Your task to perform on an android device: Go to calendar. Show me events next week Image 0: 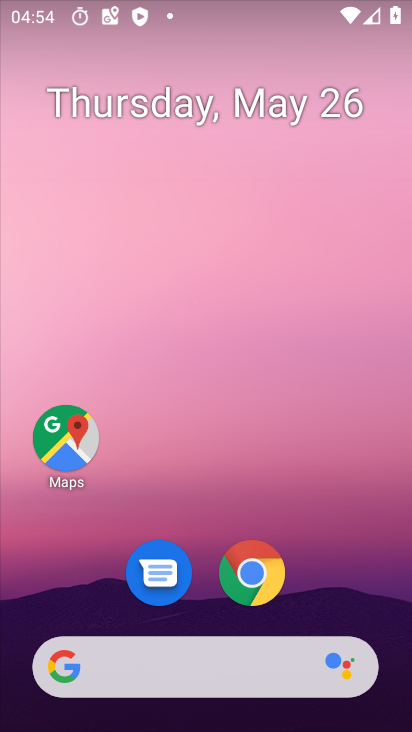
Step 0: click (67, 440)
Your task to perform on an android device: Go to calendar. Show me events next week Image 1: 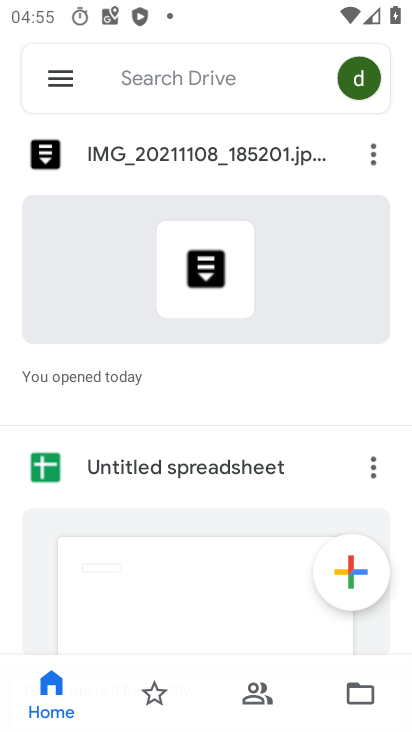
Step 1: press home button
Your task to perform on an android device: Go to calendar. Show me events next week Image 2: 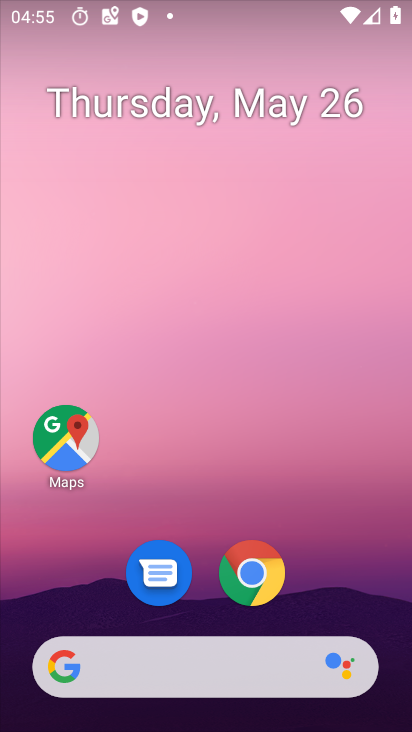
Step 2: click (65, 426)
Your task to perform on an android device: Go to calendar. Show me events next week Image 3: 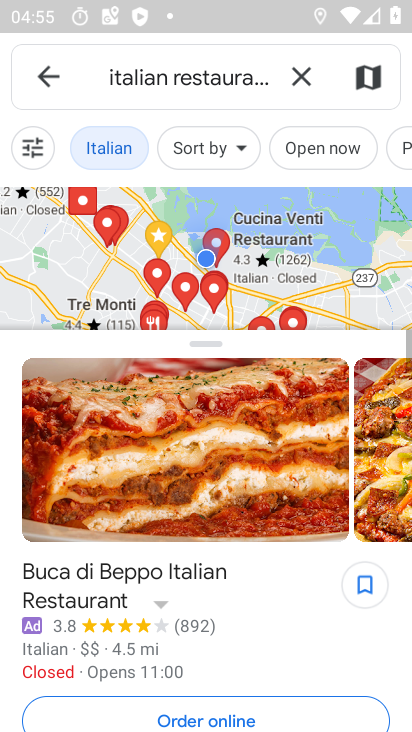
Step 3: click (46, 83)
Your task to perform on an android device: Go to calendar. Show me events next week Image 4: 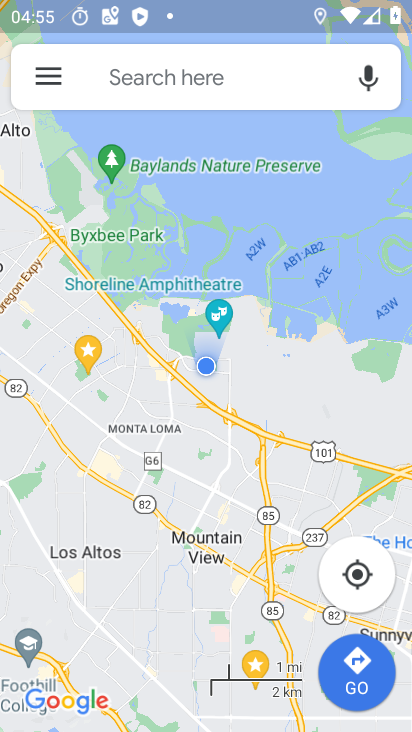
Step 4: click (46, 83)
Your task to perform on an android device: Go to calendar. Show me events next week Image 5: 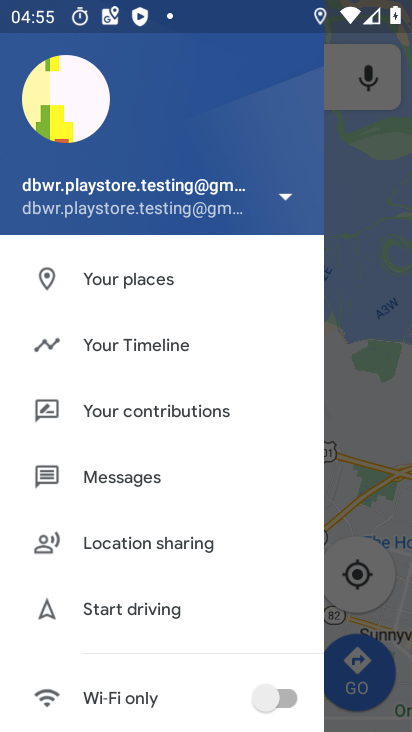
Step 5: press home button
Your task to perform on an android device: Go to calendar. Show me events next week Image 6: 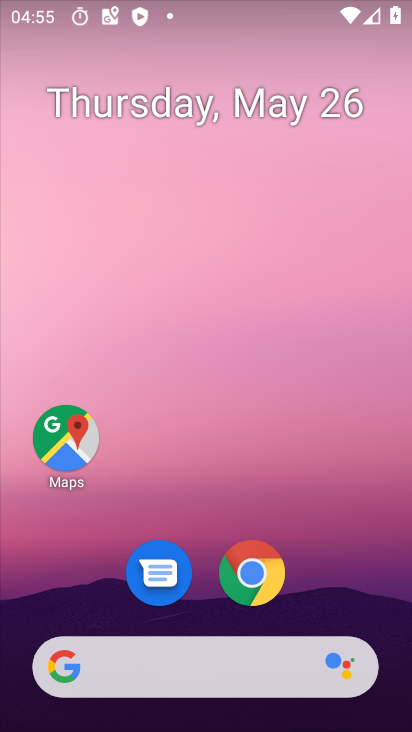
Step 6: drag from (321, 607) to (279, 142)
Your task to perform on an android device: Go to calendar. Show me events next week Image 7: 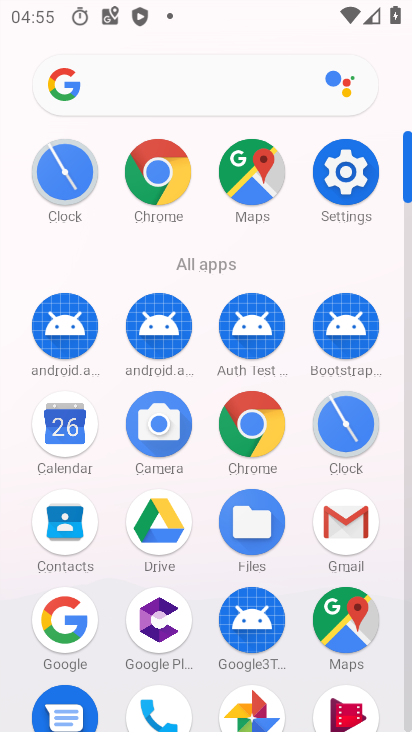
Step 7: click (67, 431)
Your task to perform on an android device: Go to calendar. Show me events next week Image 8: 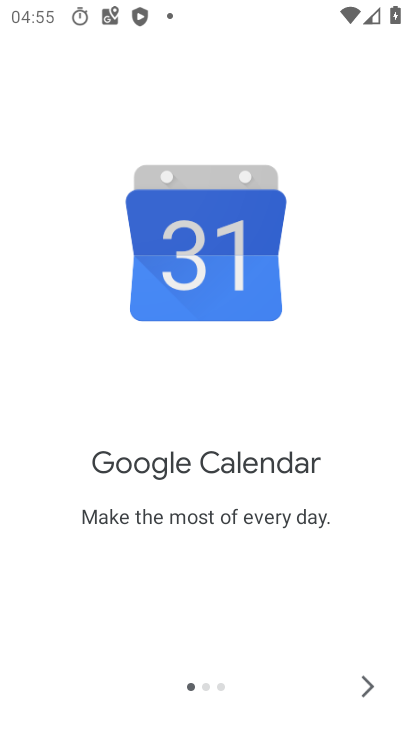
Step 8: click (365, 689)
Your task to perform on an android device: Go to calendar. Show me events next week Image 9: 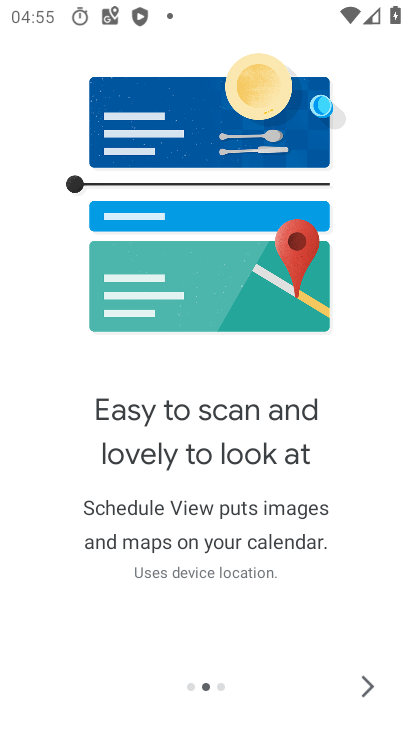
Step 9: click (364, 687)
Your task to perform on an android device: Go to calendar. Show me events next week Image 10: 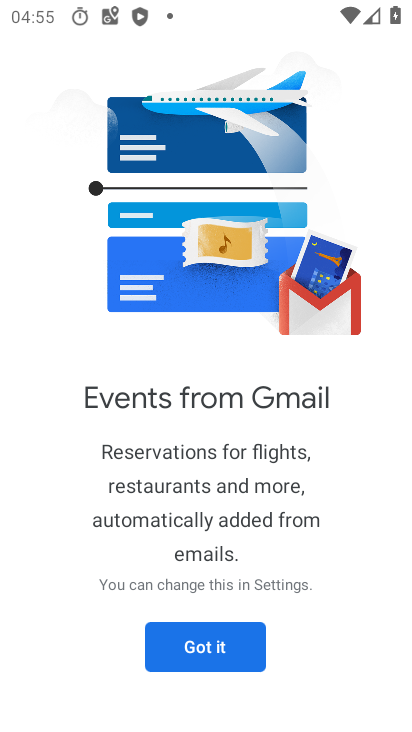
Step 10: click (207, 639)
Your task to perform on an android device: Go to calendar. Show me events next week Image 11: 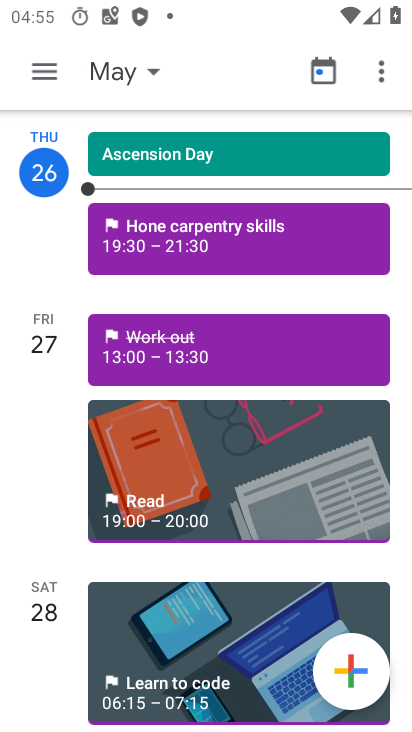
Step 11: click (39, 77)
Your task to perform on an android device: Go to calendar. Show me events next week Image 12: 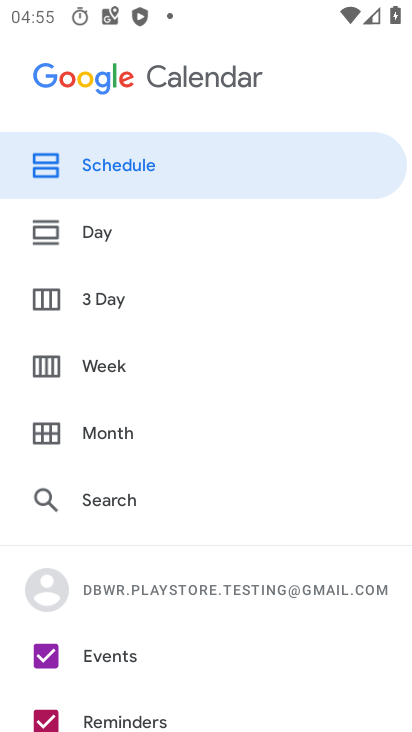
Step 12: click (126, 363)
Your task to perform on an android device: Go to calendar. Show me events next week Image 13: 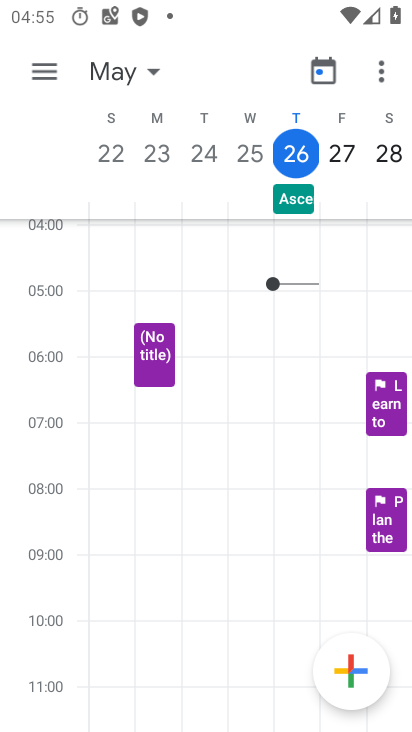
Step 13: click (102, 78)
Your task to perform on an android device: Go to calendar. Show me events next week Image 14: 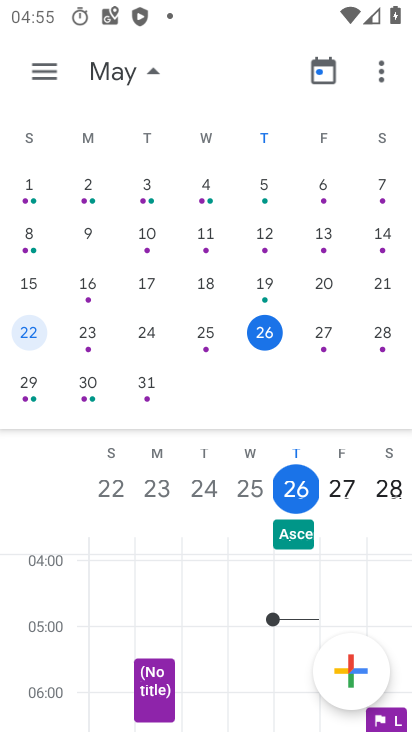
Step 14: click (29, 390)
Your task to perform on an android device: Go to calendar. Show me events next week Image 15: 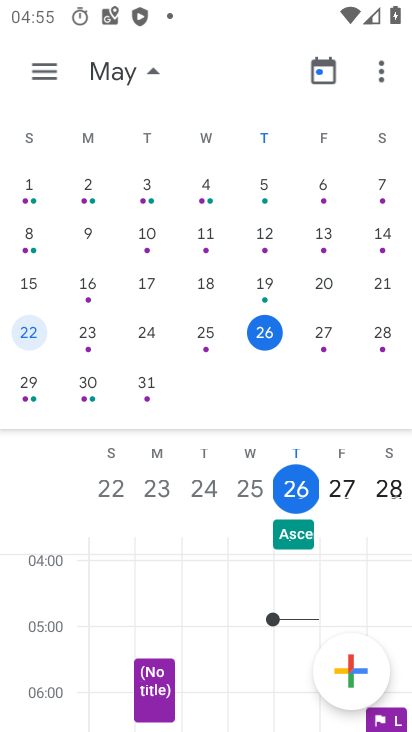
Step 15: click (29, 386)
Your task to perform on an android device: Go to calendar. Show me events next week Image 16: 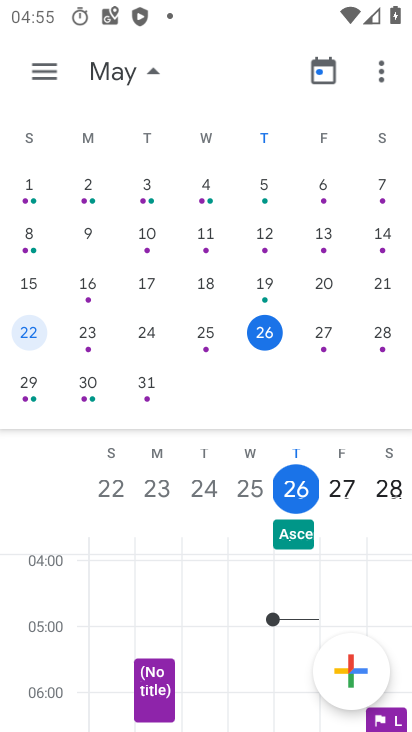
Step 16: click (29, 386)
Your task to perform on an android device: Go to calendar. Show me events next week Image 17: 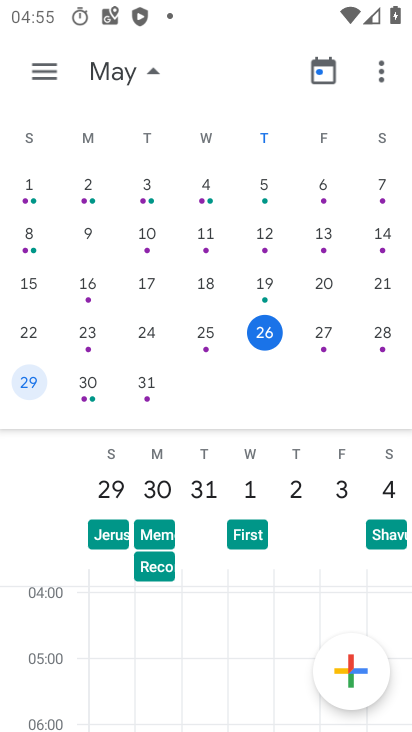
Step 17: task complete